Your task to perform on an android device: Add "razer huntsman" to the cart on bestbuy.com Image 0: 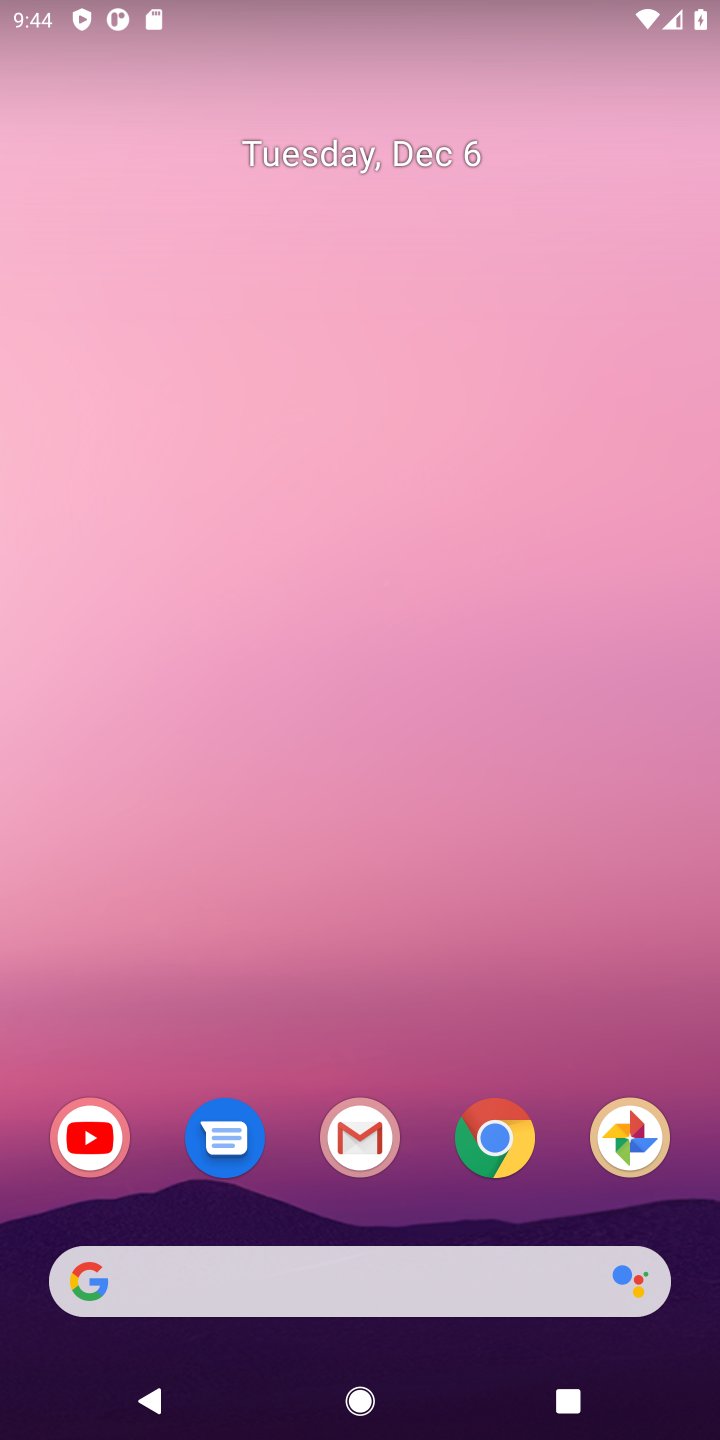
Step 0: click (501, 1140)
Your task to perform on an android device: Add "razer huntsman" to the cart on bestbuy.com Image 1: 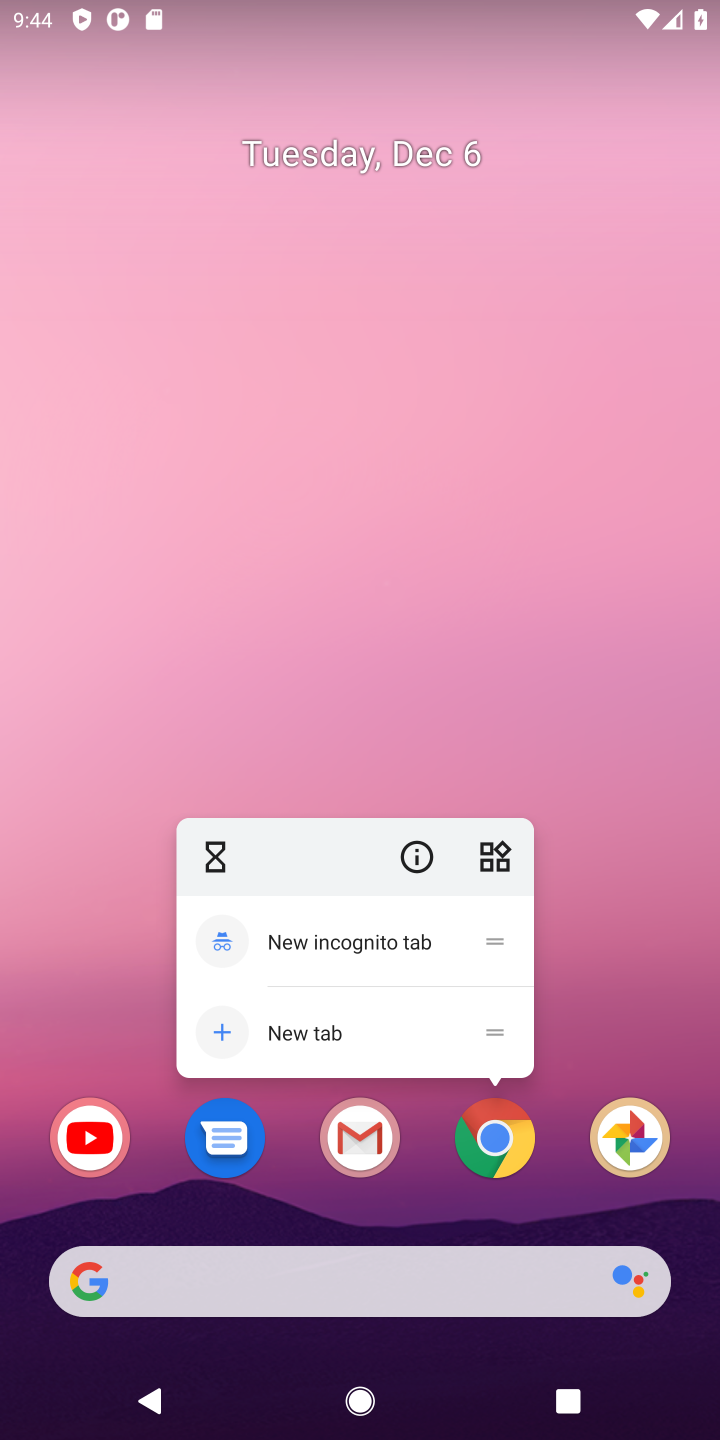
Step 1: click (501, 1140)
Your task to perform on an android device: Add "razer huntsman" to the cart on bestbuy.com Image 2: 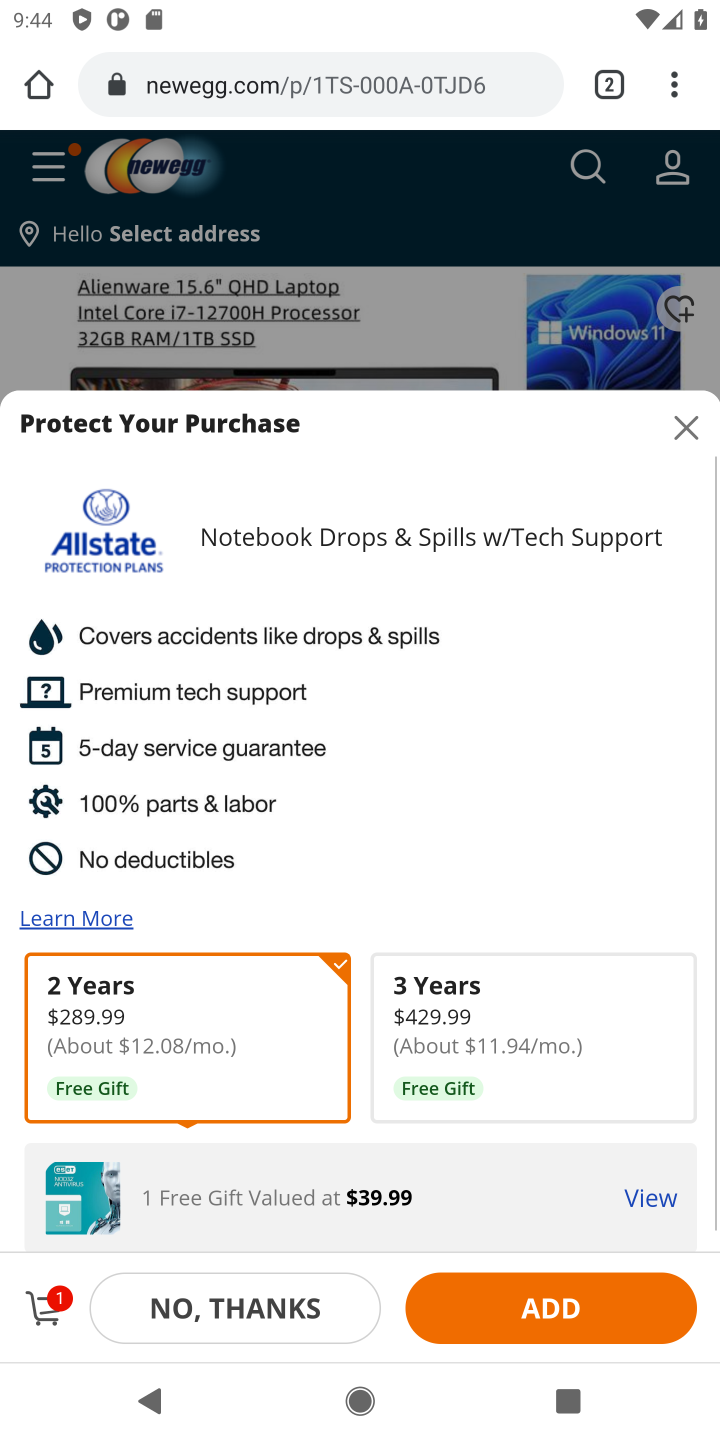
Step 2: click (347, 76)
Your task to perform on an android device: Add "razer huntsman" to the cart on bestbuy.com Image 3: 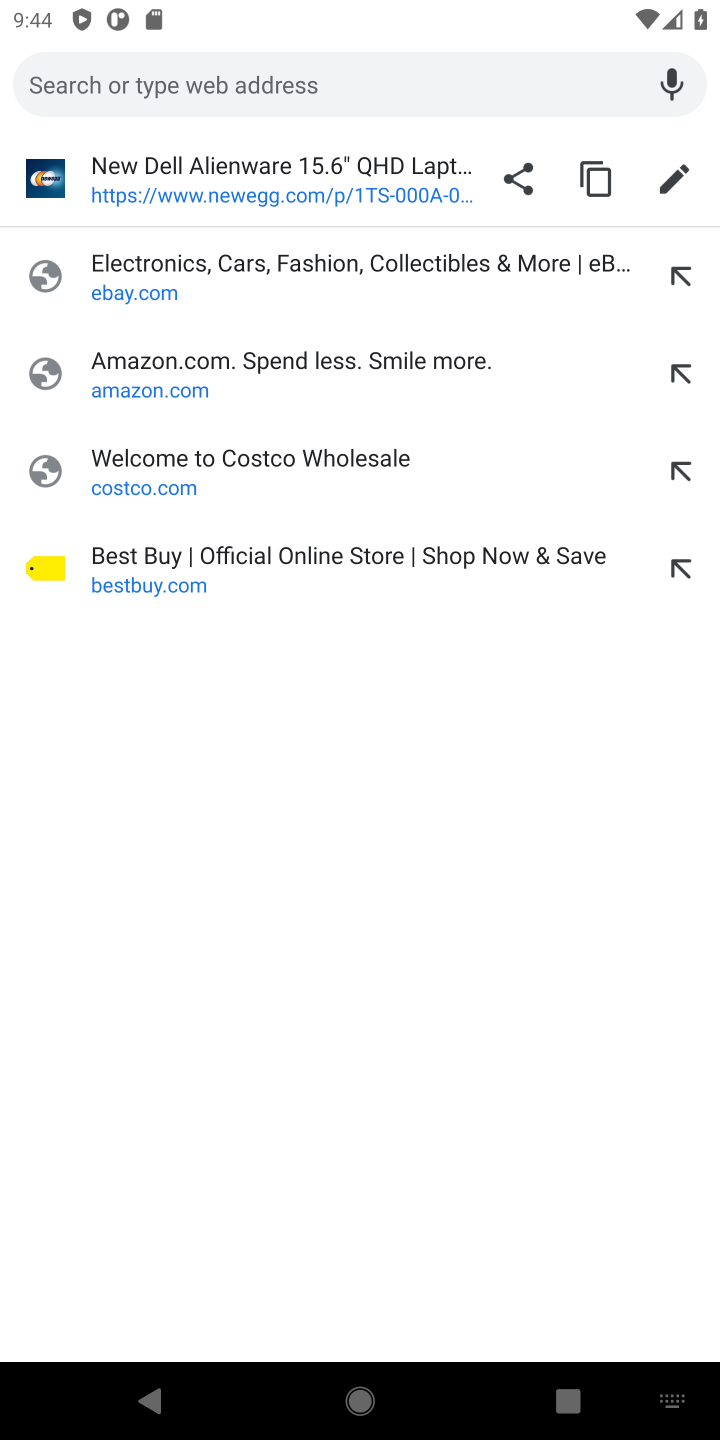
Step 3: click (144, 576)
Your task to perform on an android device: Add "razer huntsman" to the cart on bestbuy.com Image 4: 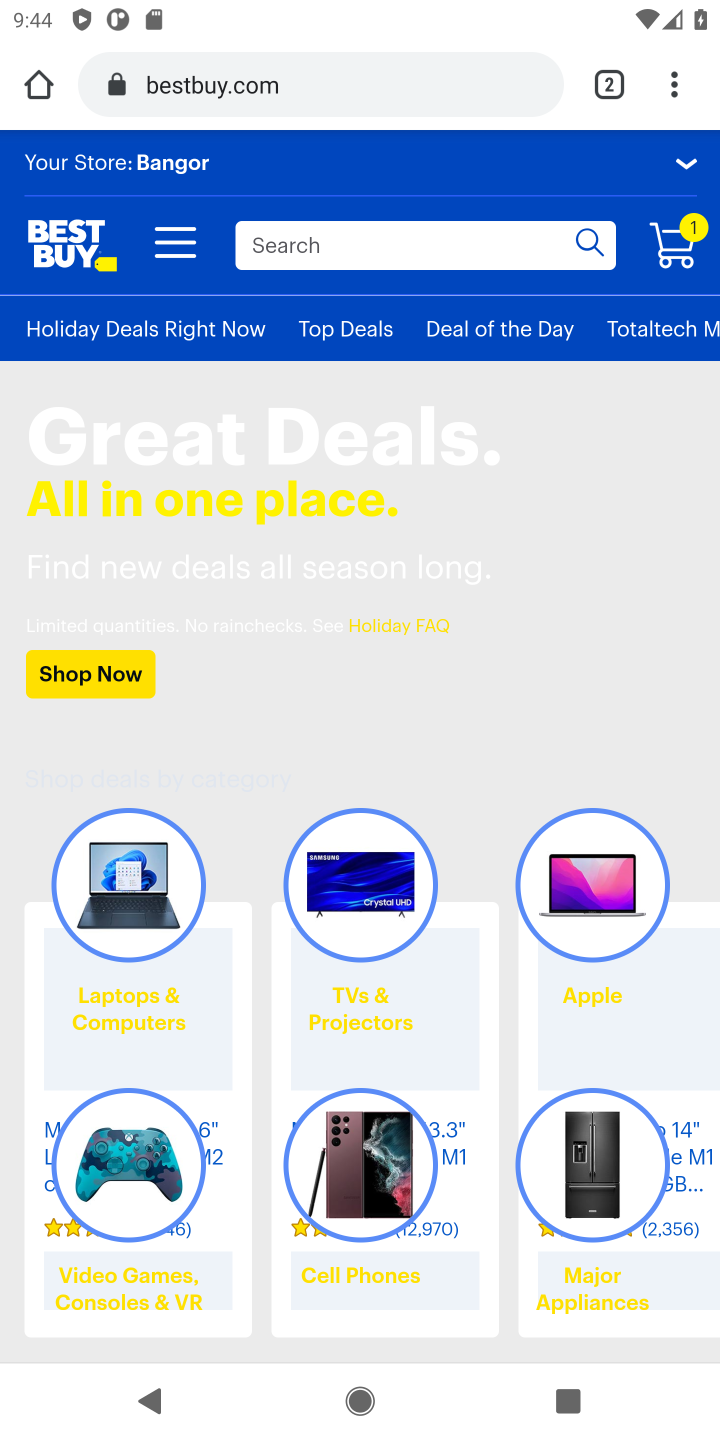
Step 4: click (362, 256)
Your task to perform on an android device: Add "razer huntsman" to the cart on bestbuy.com Image 5: 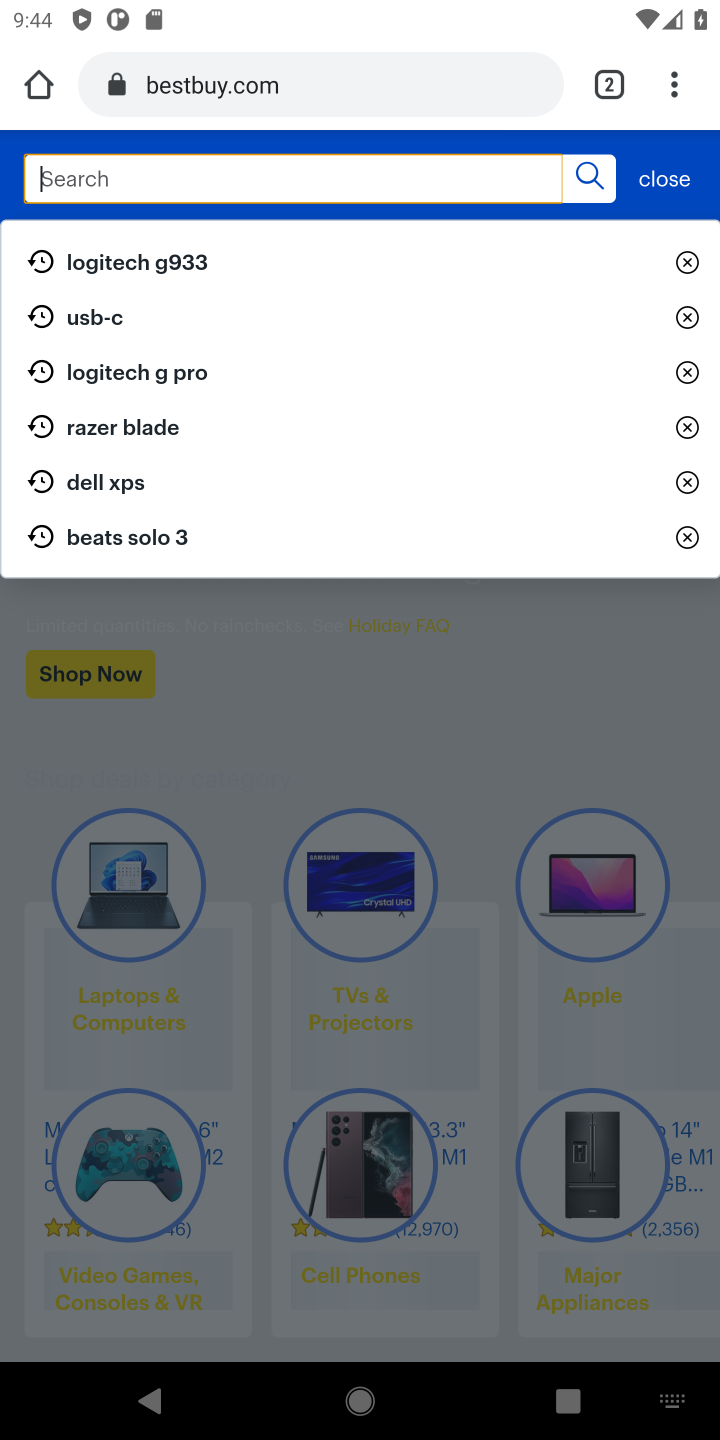
Step 5: type "razer huntsman"
Your task to perform on an android device: Add "razer huntsman" to the cart on bestbuy.com Image 6: 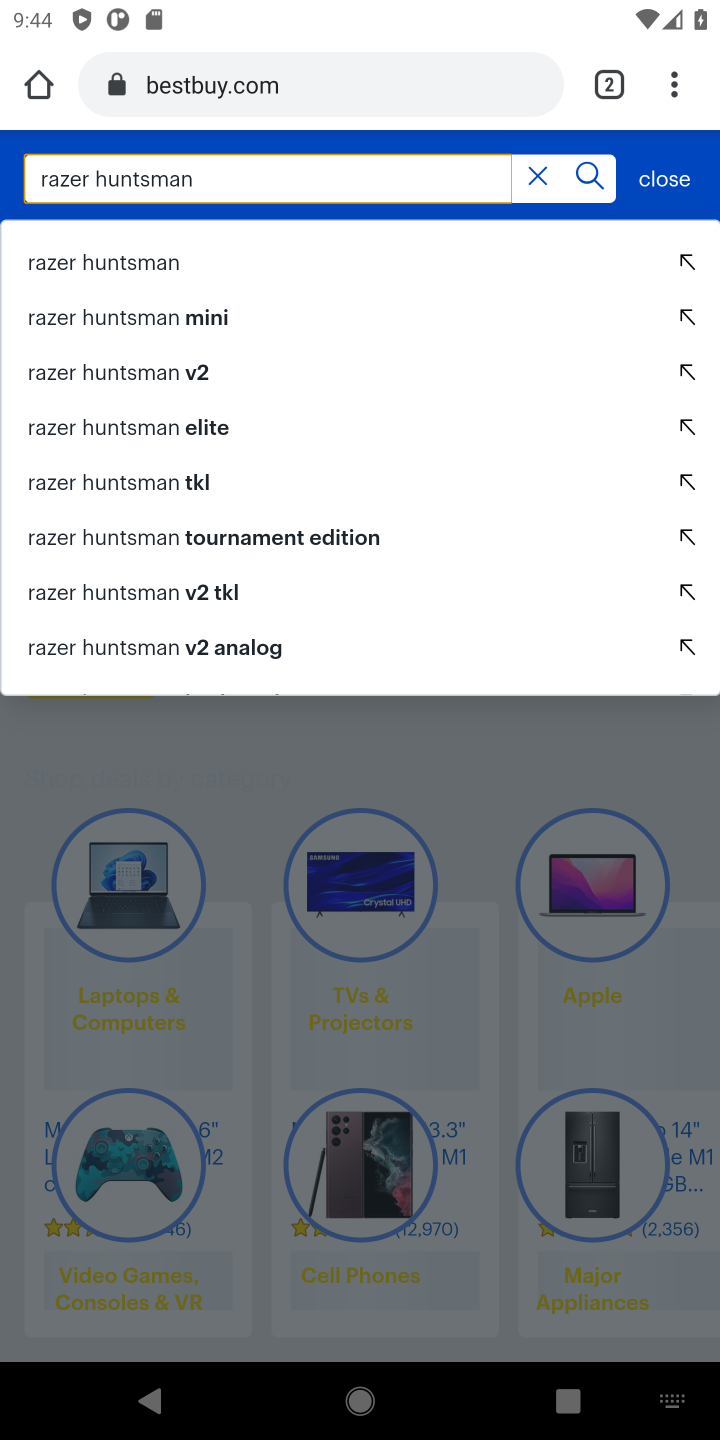
Step 6: click (133, 274)
Your task to perform on an android device: Add "razer huntsman" to the cart on bestbuy.com Image 7: 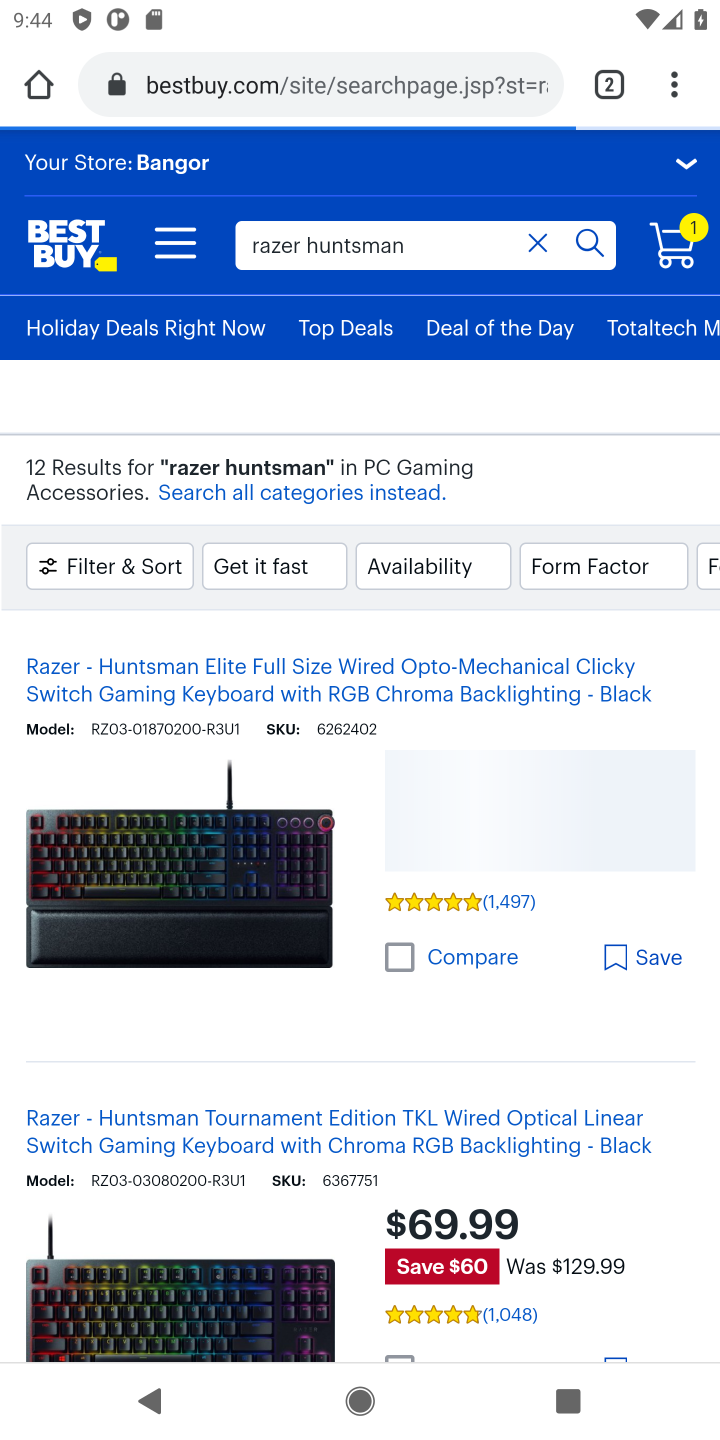
Step 7: drag from (143, 867) to (153, 444)
Your task to perform on an android device: Add "razer huntsman" to the cart on bestbuy.com Image 8: 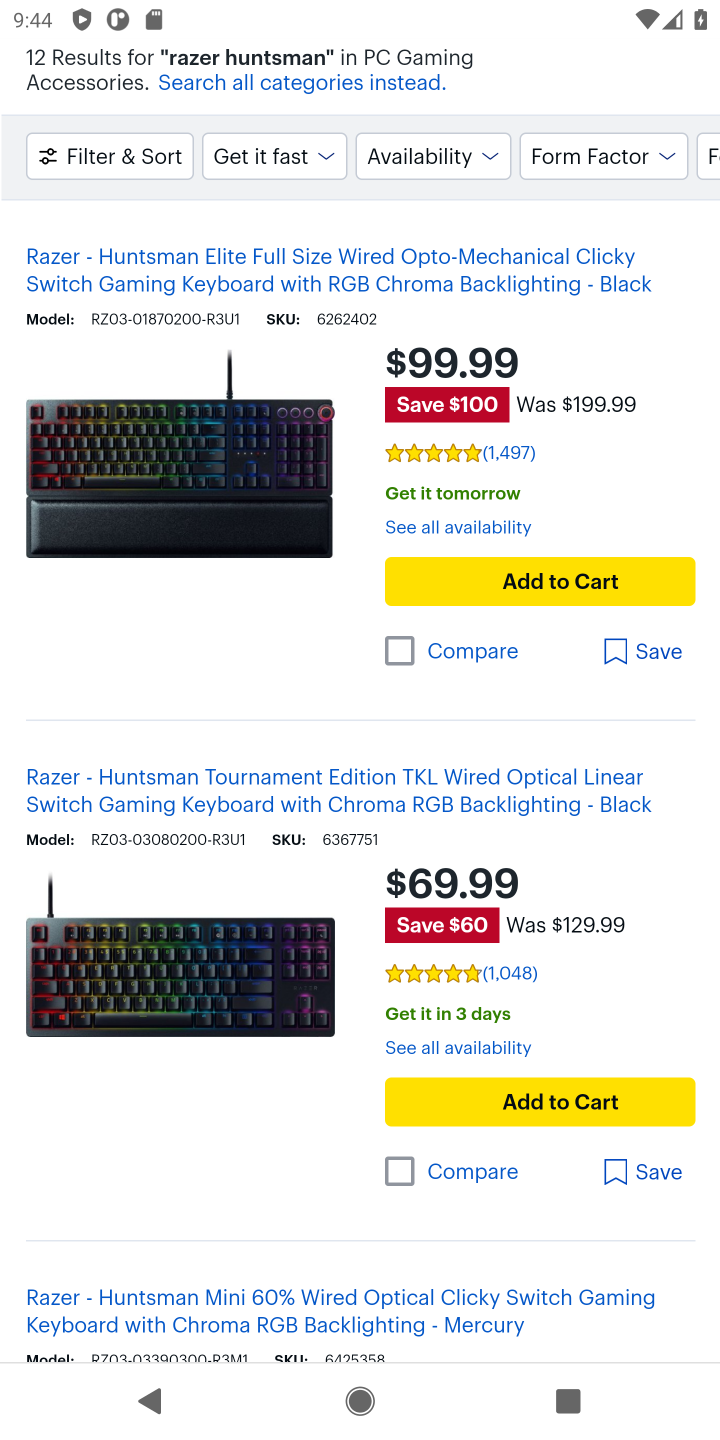
Step 8: click (488, 602)
Your task to perform on an android device: Add "razer huntsman" to the cart on bestbuy.com Image 9: 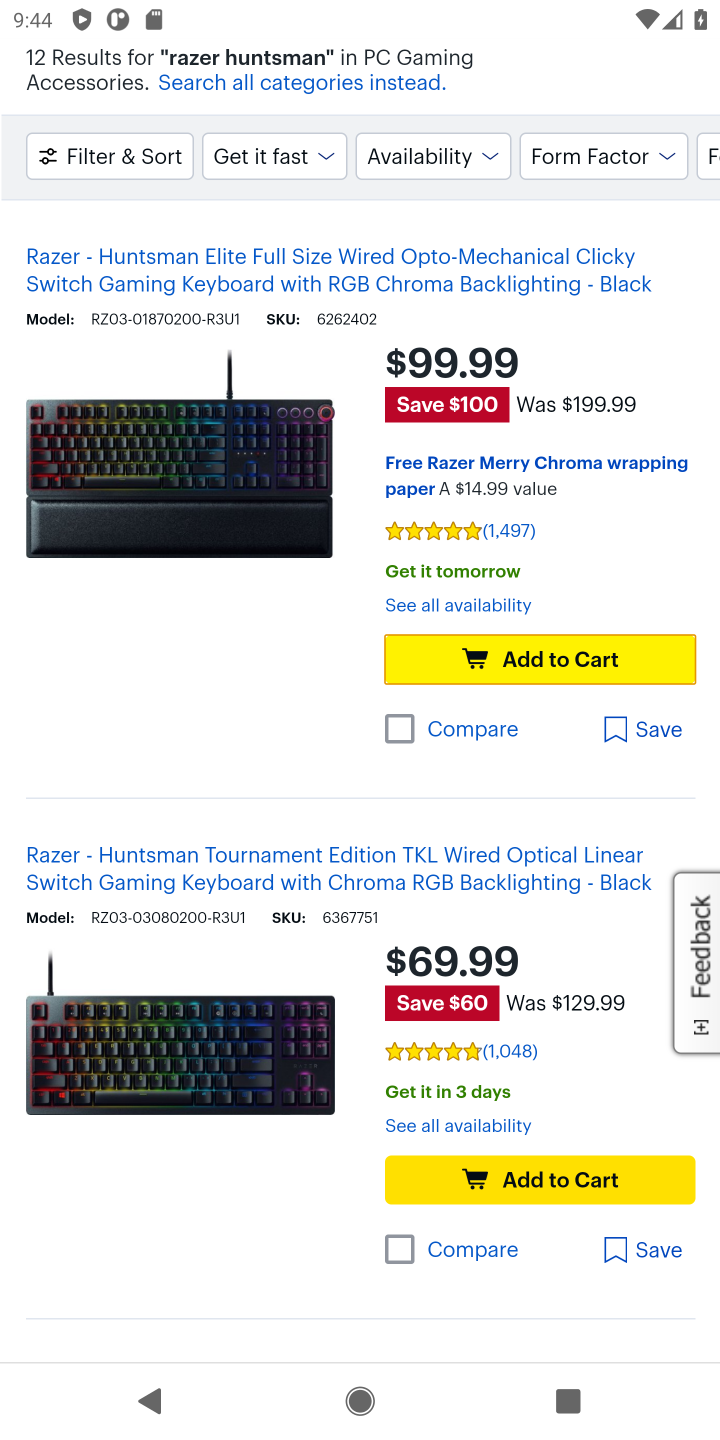
Step 9: click (473, 671)
Your task to perform on an android device: Add "razer huntsman" to the cart on bestbuy.com Image 10: 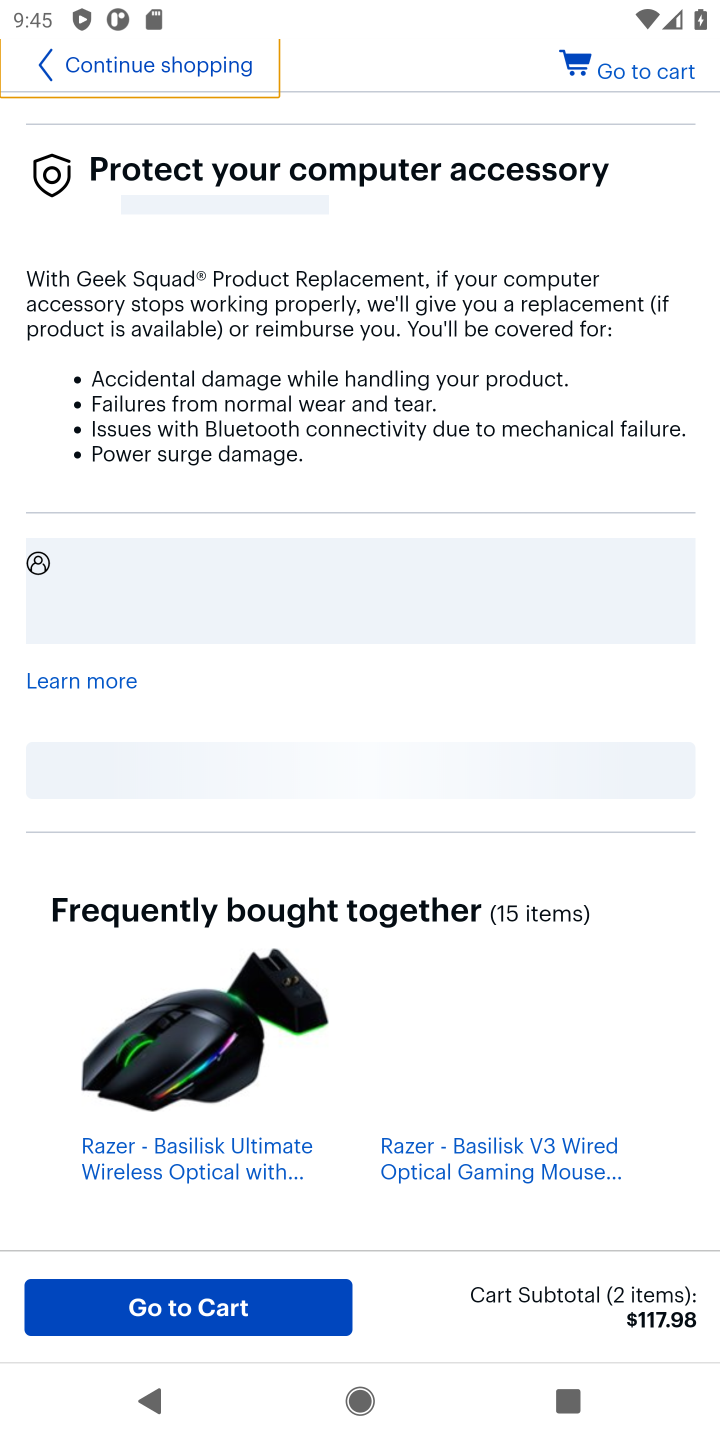
Step 10: task complete